Your task to perform on an android device: change the clock display to show seconds Image 0: 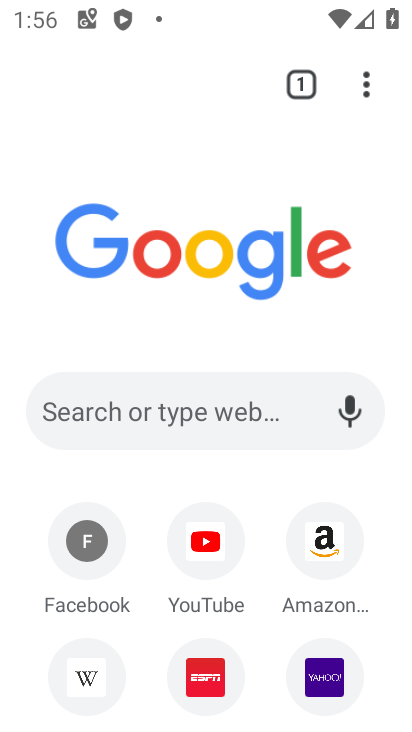
Step 0: press home button
Your task to perform on an android device: change the clock display to show seconds Image 1: 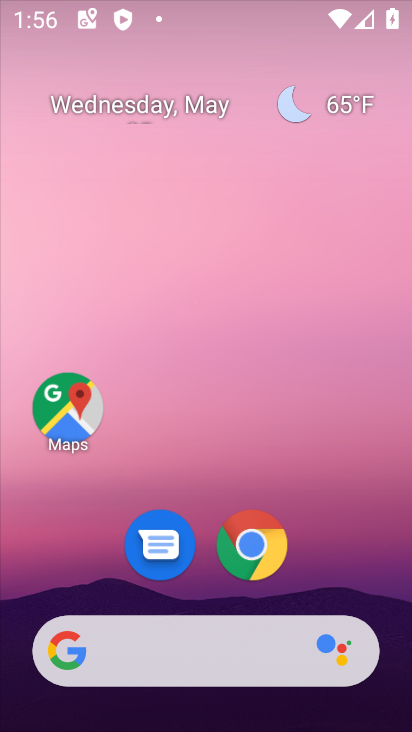
Step 1: drag from (360, 576) to (274, 40)
Your task to perform on an android device: change the clock display to show seconds Image 2: 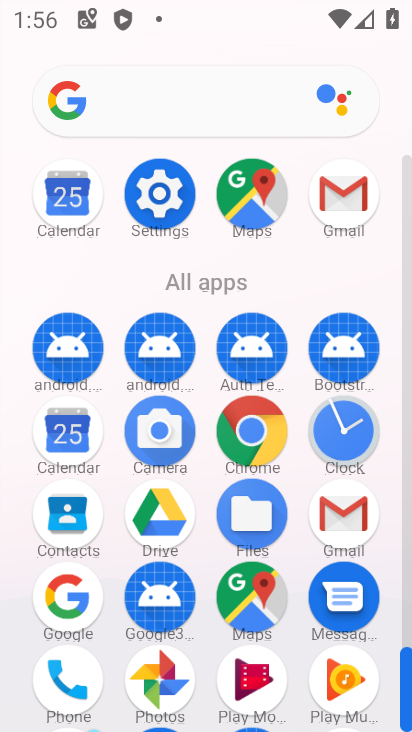
Step 2: click (340, 443)
Your task to perform on an android device: change the clock display to show seconds Image 3: 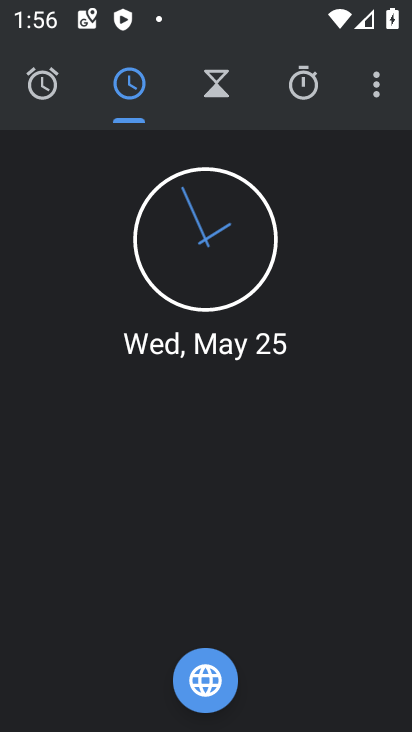
Step 3: click (370, 67)
Your task to perform on an android device: change the clock display to show seconds Image 4: 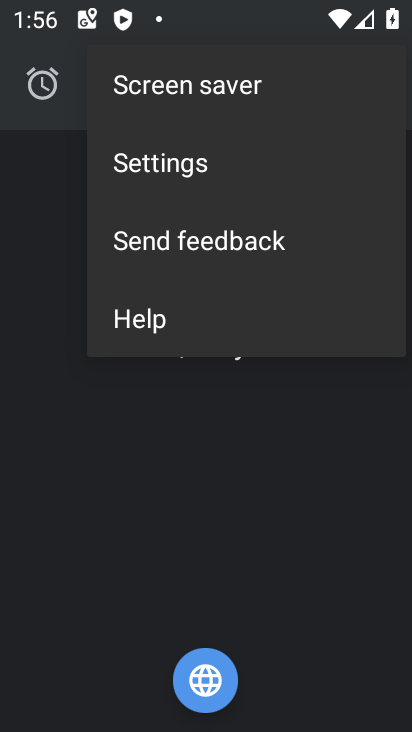
Step 4: click (194, 183)
Your task to perform on an android device: change the clock display to show seconds Image 5: 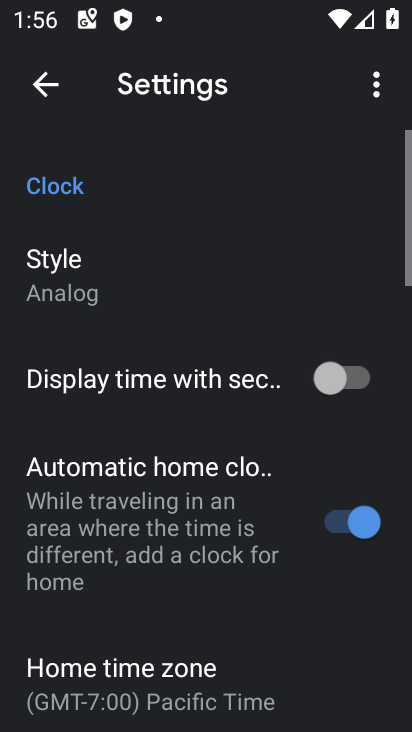
Step 5: click (353, 368)
Your task to perform on an android device: change the clock display to show seconds Image 6: 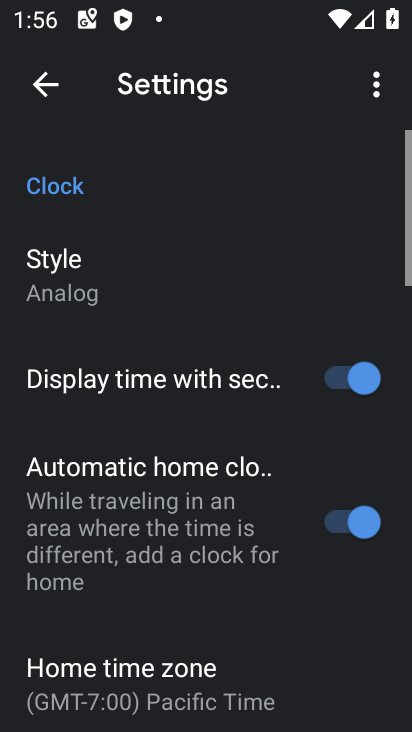
Step 6: task complete